Your task to perform on an android device: What's the weather going to be tomorrow? Image 0: 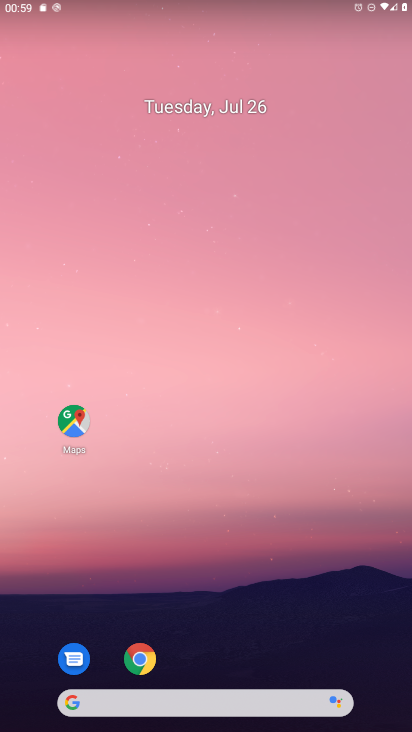
Step 0: drag from (229, 646) to (261, 3)
Your task to perform on an android device: What's the weather going to be tomorrow? Image 1: 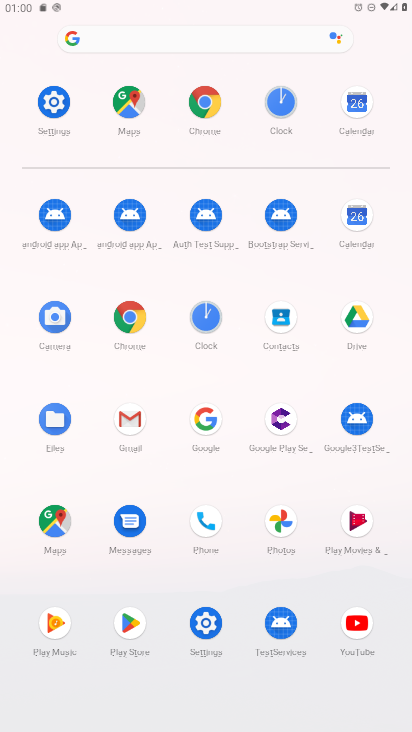
Step 1: click (121, 308)
Your task to perform on an android device: What's the weather going to be tomorrow? Image 2: 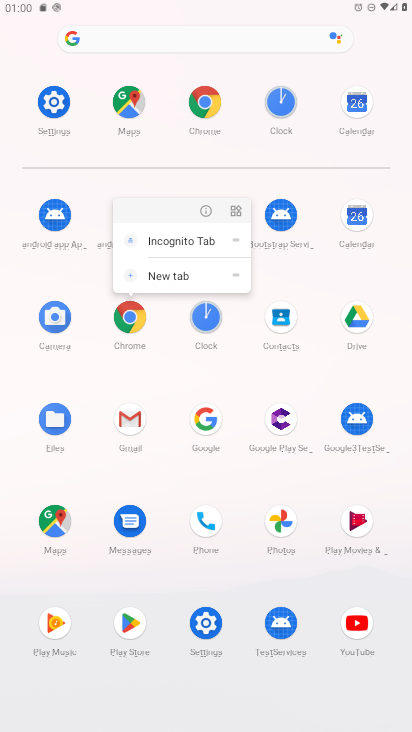
Step 2: click (131, 309)
Your task to perform on an android device: What's the weather going to be tomorrow? Image 3: 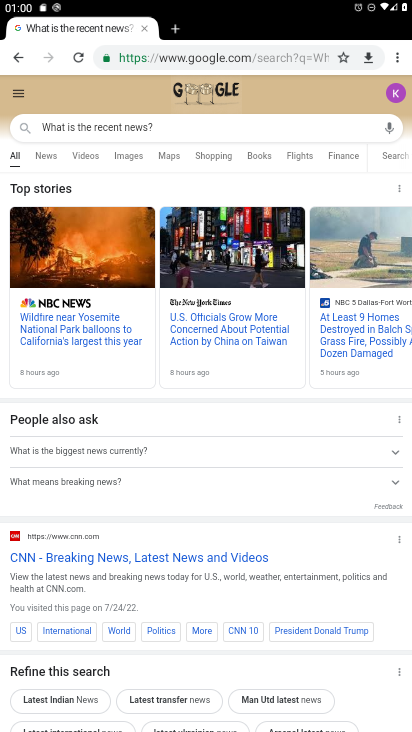
Step 3: click (257, 51)
Your task to perform on an android device: What's the weather going to be tomorrow? Image 4: 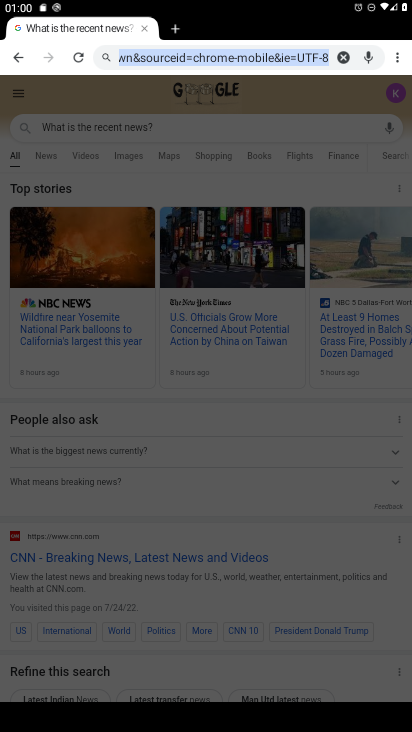
Step 4: click (339, 51)
Your task to perform on an android device: What's the weather going to be tomorrow? Image 5: 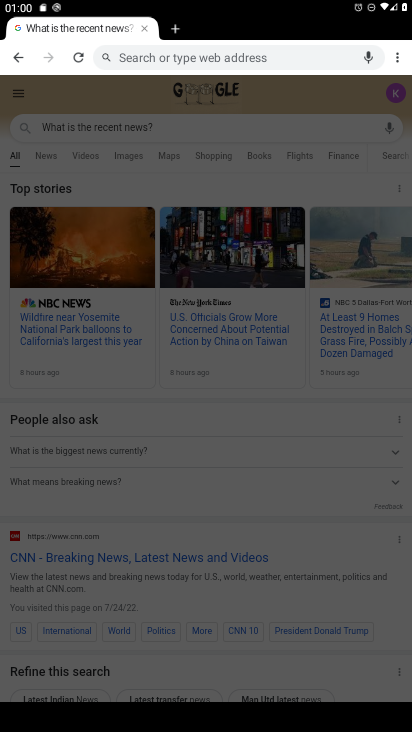
Step 5: type "What's the weather going to be tomorrow?"
Your task to perform on an android device: What's the weather going to be tomorrow? Image 6: 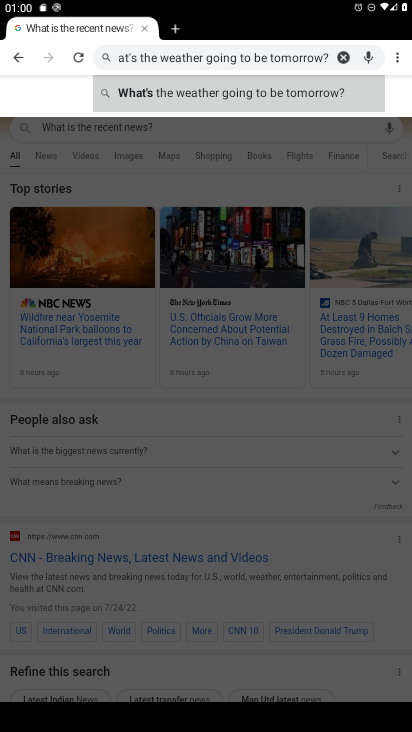
Step 6: click (207, 91)
Your task to perform on an android device: What's the weather going to be tomorrow? Image 7: 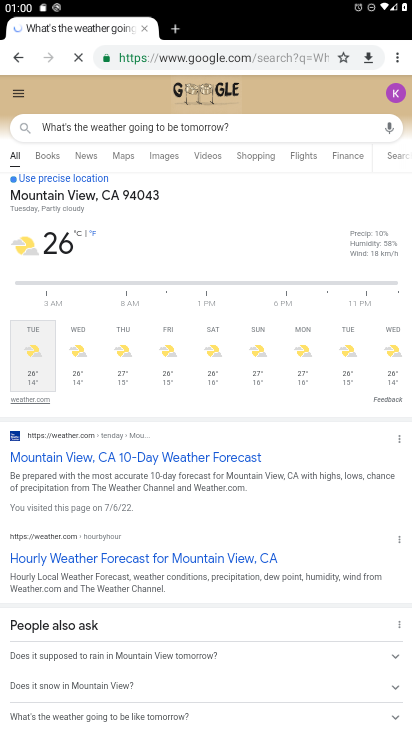
Step 7: task complete